Your task to perform on an android device: Open ESPN.com Image 0: 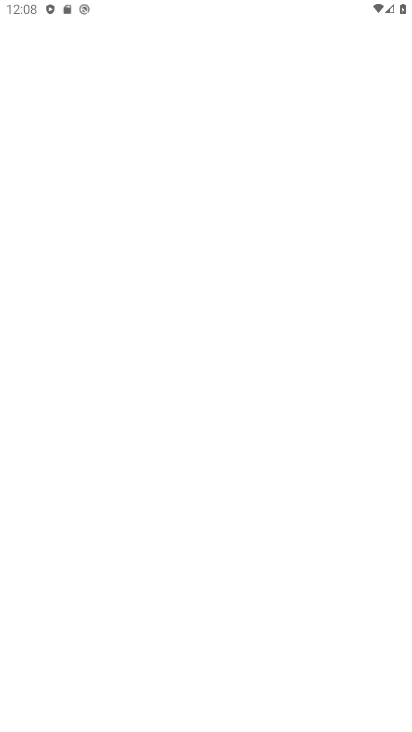
Step 0: press home button
Your task to perform on an android device: Open ESPN.com Image 1: 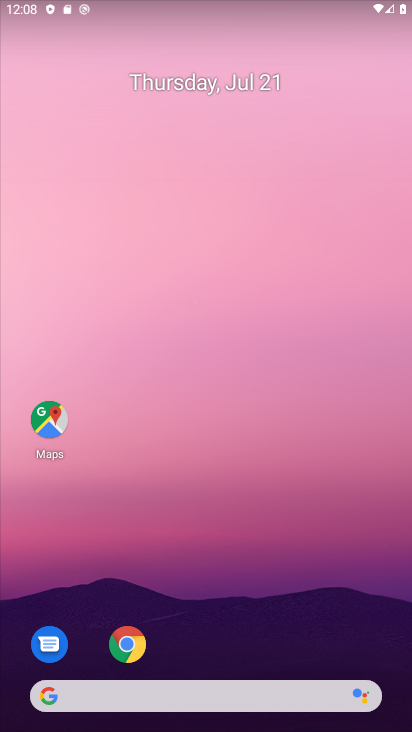
Step 1: click (128, 649)
Your task to perform on an android device: Open ESPN.com Image 2: 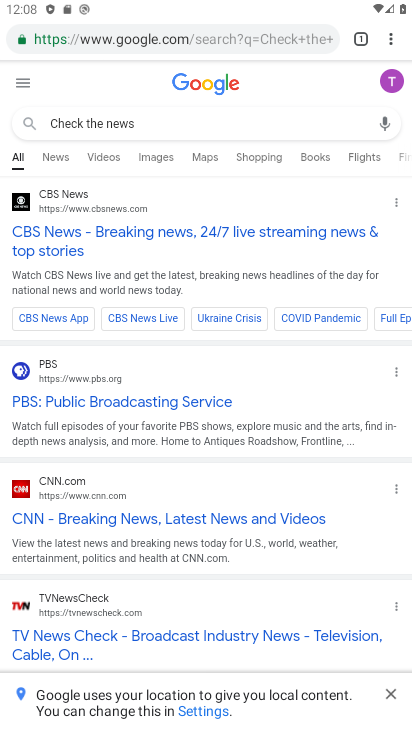
Step 2: click (193, 29)
Your task to perform on an android device: Open ESPN.com Image 3: 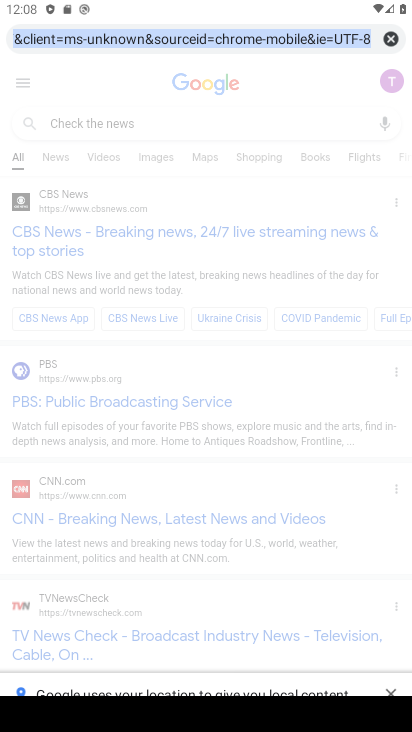
Step 3: type " ESPN.com"
Your task to perform on an android device: Open ESPN.com Image 4: 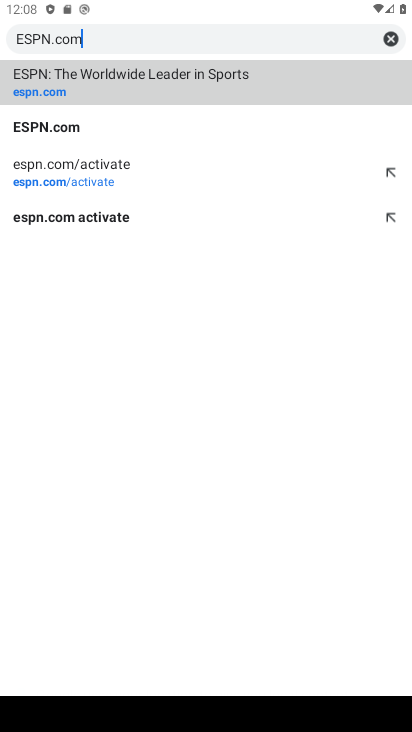
Step 4: type ""
Your task to perform on an android device: Open ESPN.com Image 5: 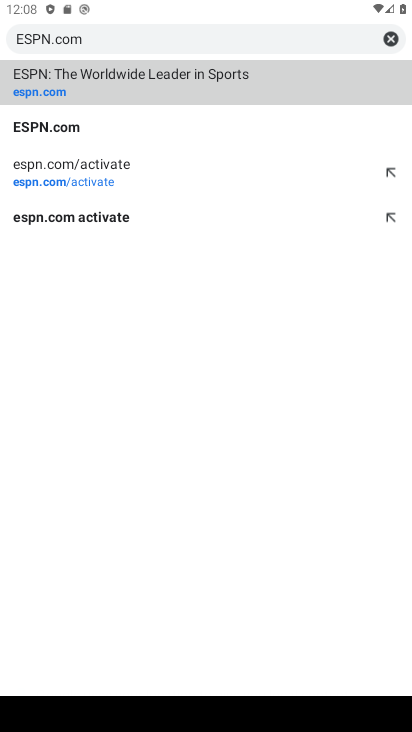
Step 5: click (55, 91)
Your task to perform on an android device: Open ESPN.com Image 6: 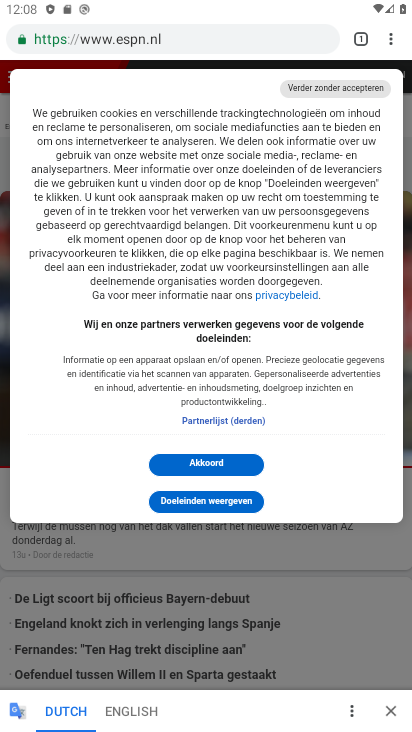
Step 6: task complete